Your task to perform on an android device: toggle show notifications on the lock screen Image 0: 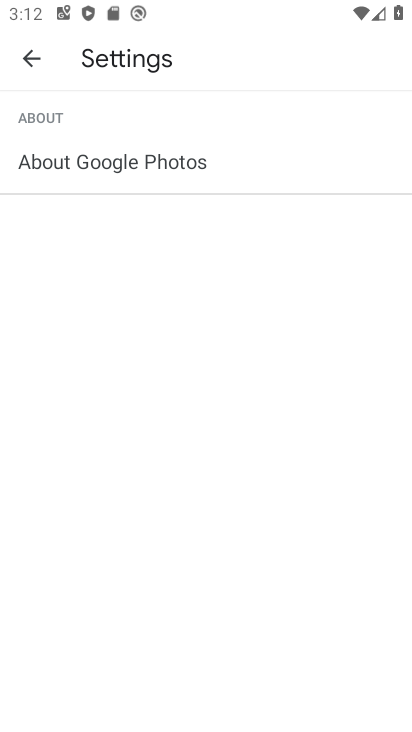
Step 0: press home button
Your task to perform on an android device: toggle show notifications on the lock screen Image 1: 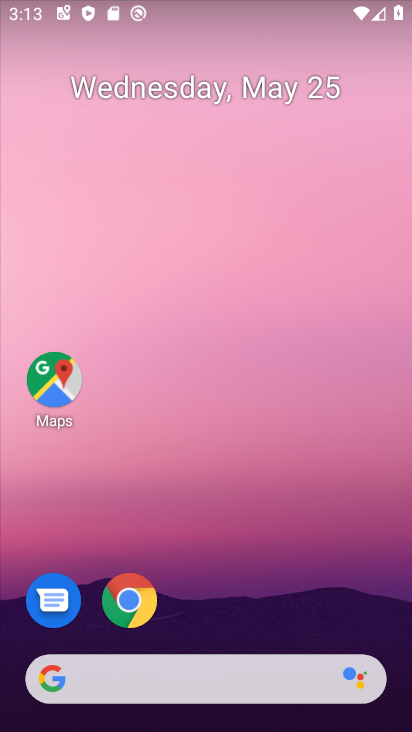
Step 1: drag from (63, 591) to (292, 169)
Your task to perform on an android device: toggle show notifications on the lock screen Image 2: 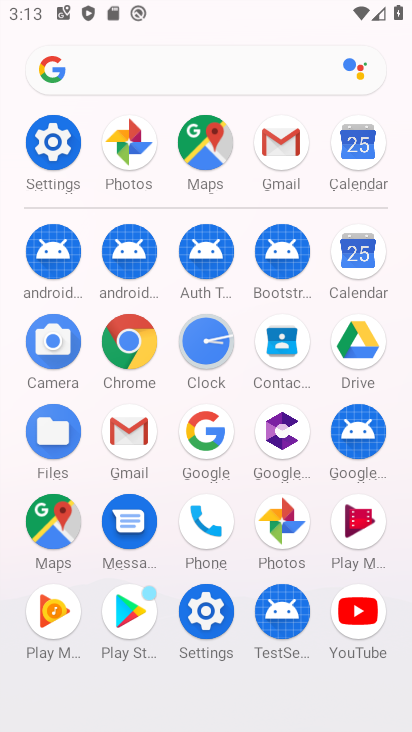
Step 2: click (214, 603)
Your task to perform on an android device: toggle show notifications on the lock screen Image 3: 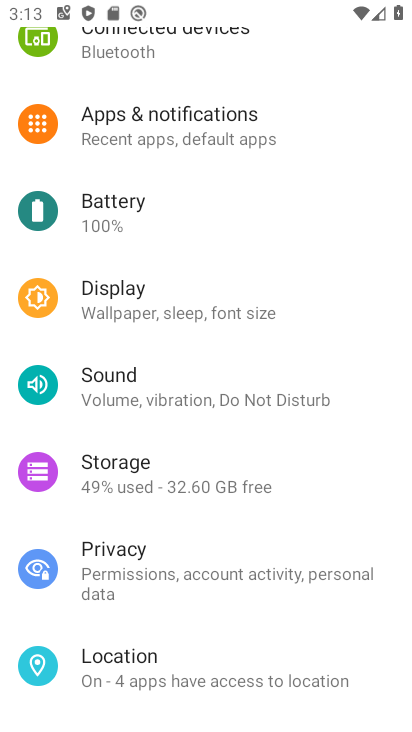
Step 3: click (162, 127)
Your task to perform on an android device: toggle show notifications on the lock screen Image 4: 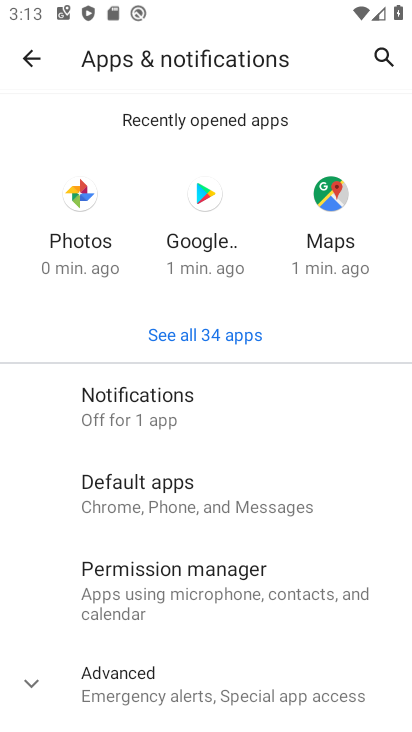
Step 4: click (152, 410)
Your task to perform on an android device: toggle show notifications on the lock screen Image 5: 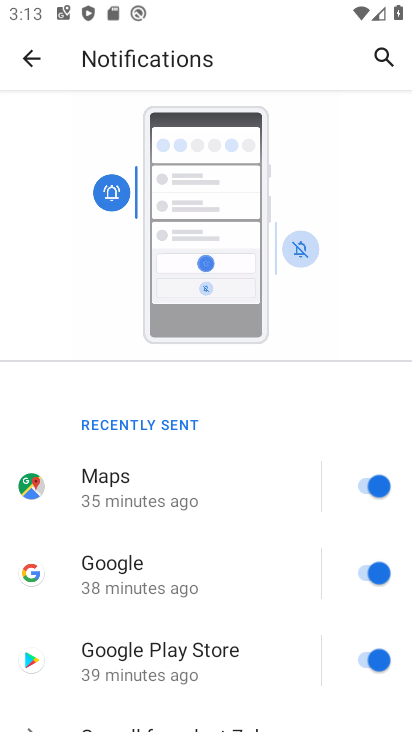
Step 5: drag from (36, 584) to (280, 237)
Your task to perform on an android device: toggle show notifications on the lock screen Image 6: 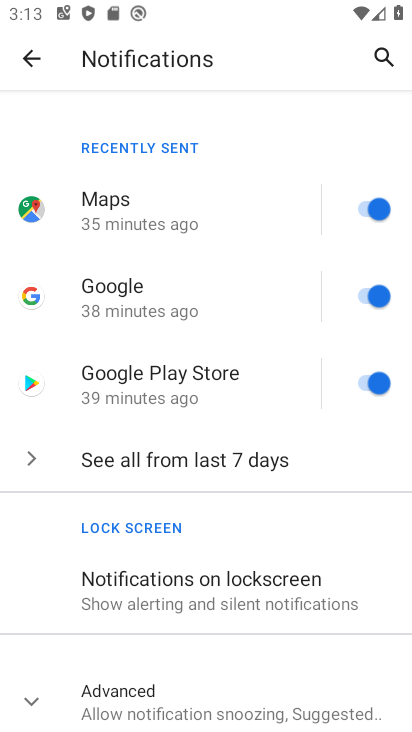
Step 6: click (240, 589)
Your task to perform on an android device: toggle show notifications on the lock screen Image 7: 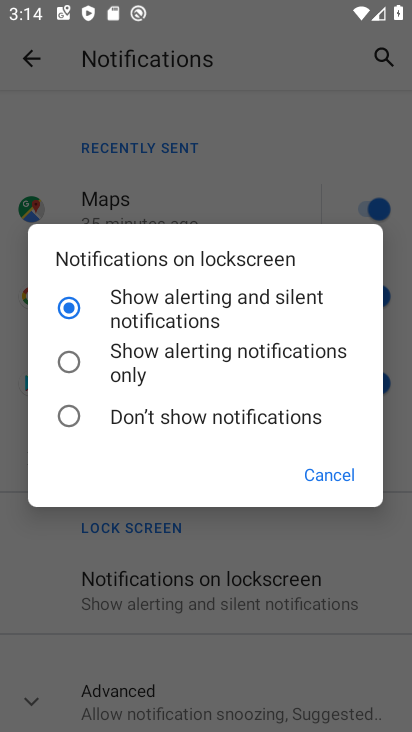
Step 7: click (65, 425)
Your task to perform on an android device: toggle show notifications on the lock screen Image 8: 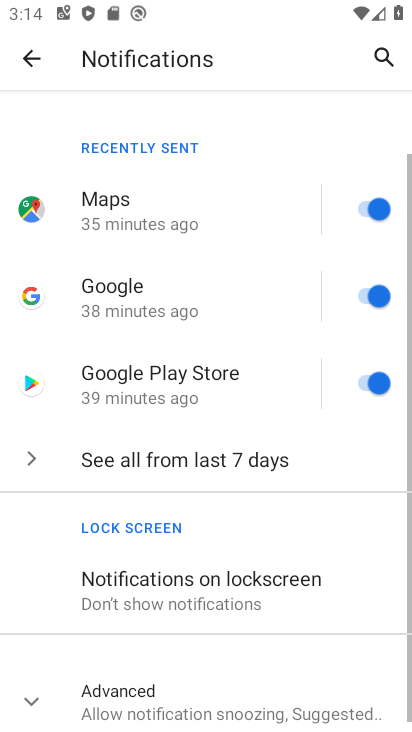
Step 8: task complete